Your task to perform on an android device: Play the last video I watched on Youtube Image 0: 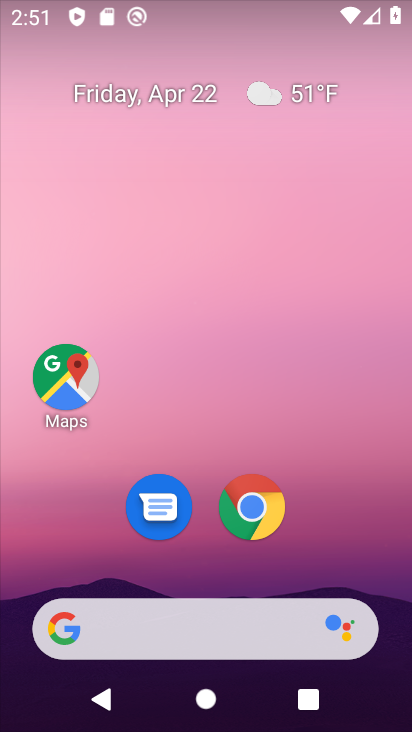
Step 0: drag from (204, 485) to (232, 106)
Your task to perform on an android device: Play the last video I watched on Youtube Image 1: 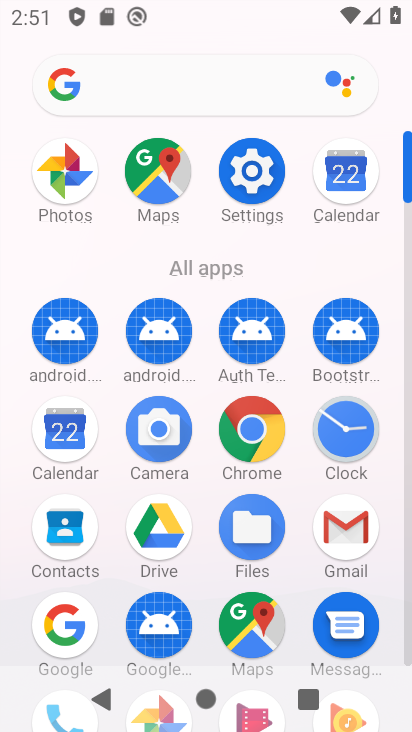
Step 1: drag from (230, 555) to (281, 83)
Your task to perform on an android device: Play the last video I watched on Youtube Image 2: 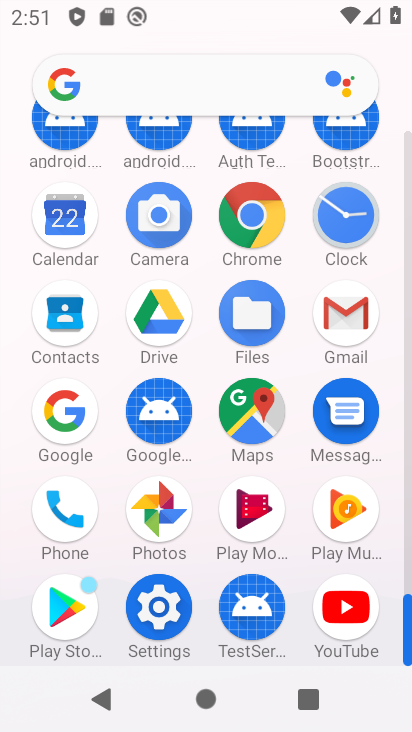
Step 2: click (343, 609)
Your task to perform on an android device: Play the last video I watched on Youtube Image 3: 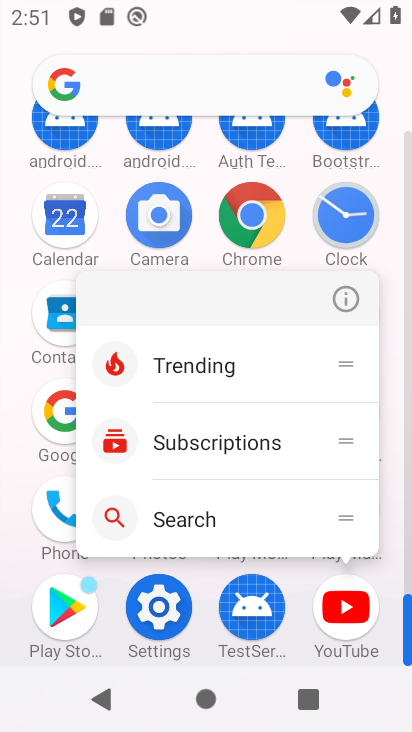
Step 3: click (352, 615)
Your task to perform on an android device: Play the last video I watched on Youtube Image 4: 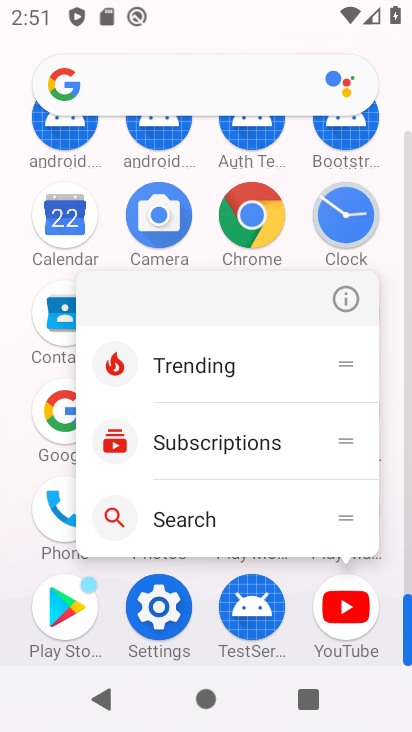
Step 4: click (341, 606)
Your task to perform on an android device: Play the last video I watched on Youtube Image 5: 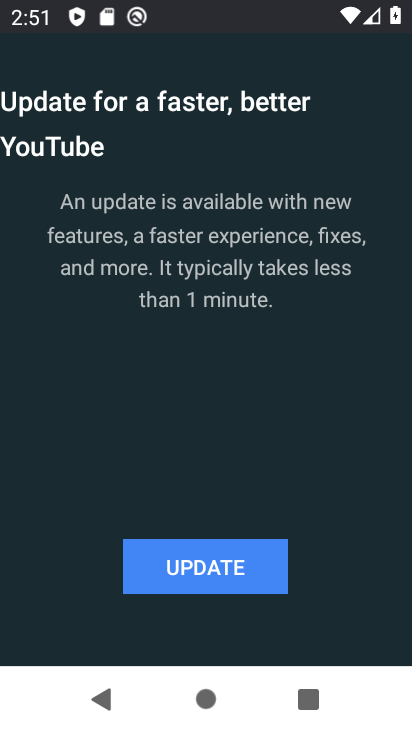
Step 5: click (206, 568)
Your task to perform on an android device: Play the last video I watched on Youtube Image 6: 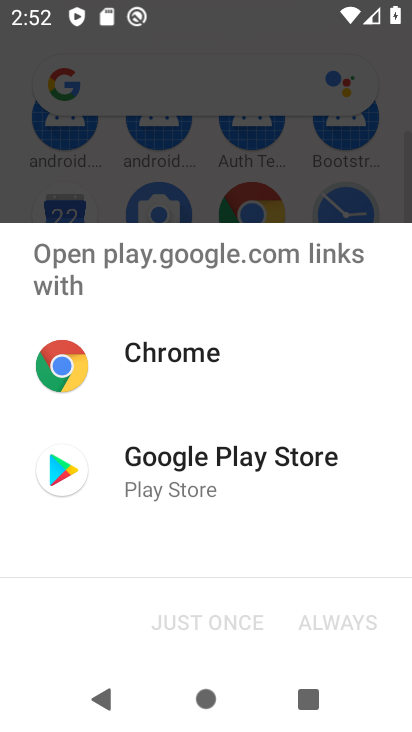
Step 6: click (228, 626)
Your task to perform on an android device: Play the last video I watched on Youtube Image 7: 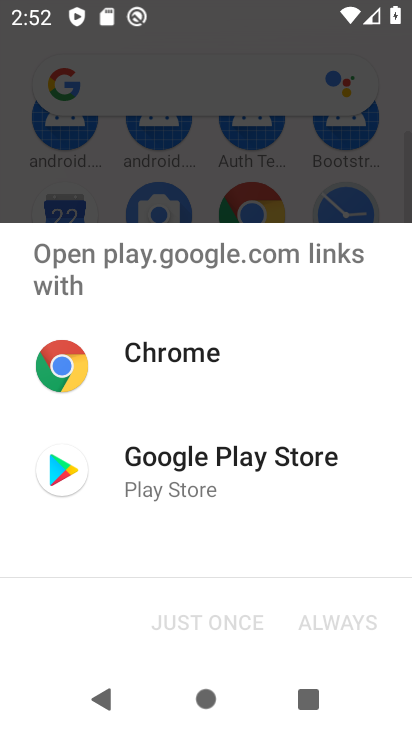
Step 7: click (216, 616)
Your task to perform on an android device: Play the last video I watched on Youtube Image 8: 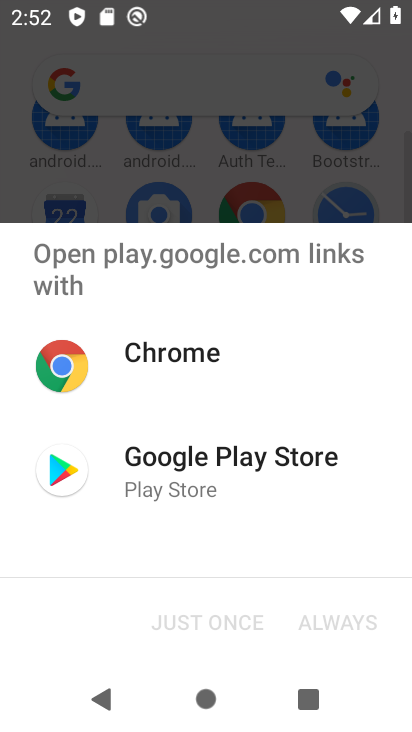
Step 8: press back button
Your task to perform on an android device: Play the last video I watched on Youtube Image 9: 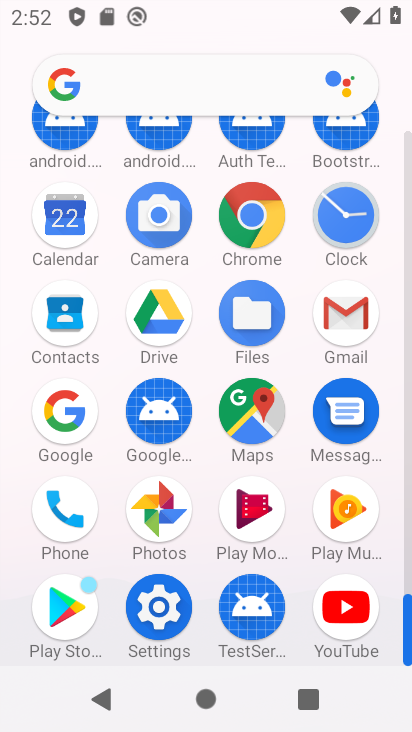
Step 9: click (345, 607)
Your task to perform on an android device: Play the last video I watched on Youtube Image 10: 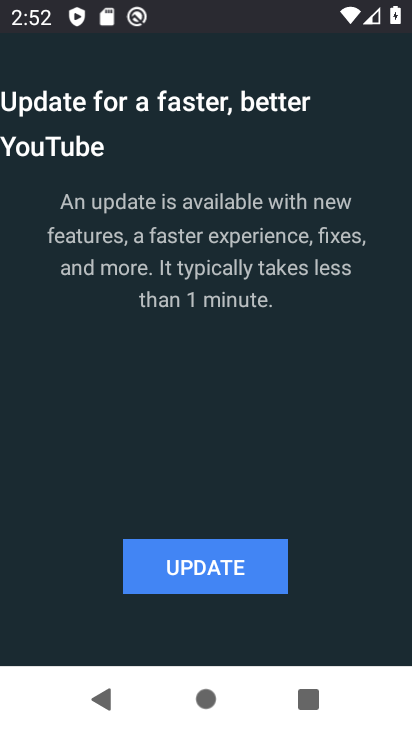
Step 10: click (205, 575)
Your task to perform on an android device: Play the last video I watched on Youtube Image 11: 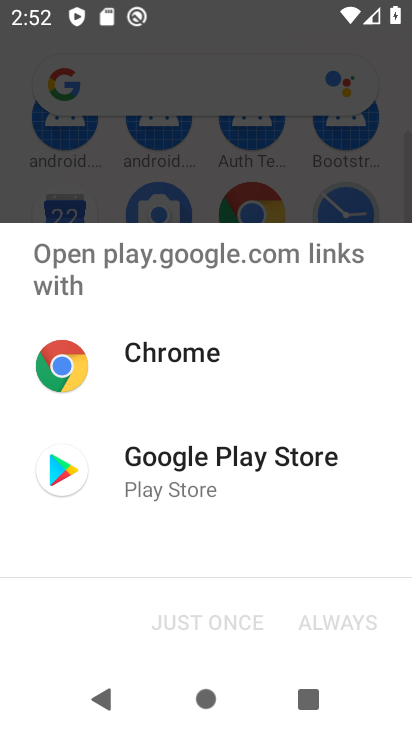
Step 11: click (195, 482)
Your task to perform on an android device: Play the last video I watched on Youtube Image 12: 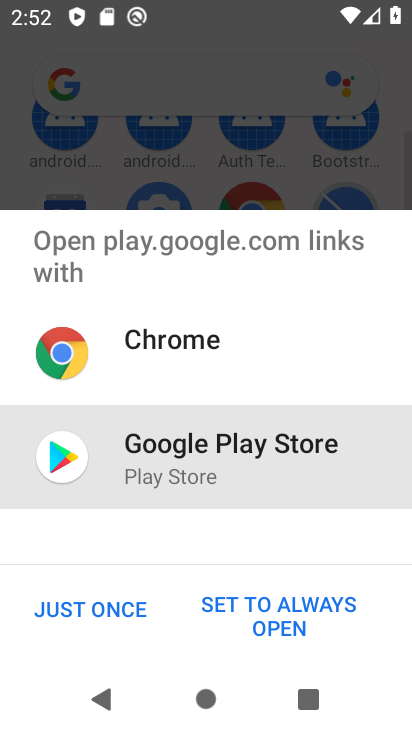
Step 12: click (85, 607)
Your task to perform on an android device: Play the last video I watched on Youtube Image 13: 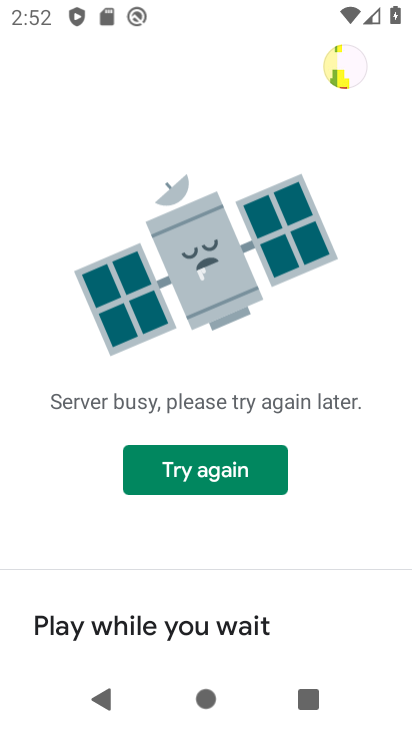
Step 13: click (236, 477)
Your task to perform on an android device: Play the last video I watched on Youtube Image 14: 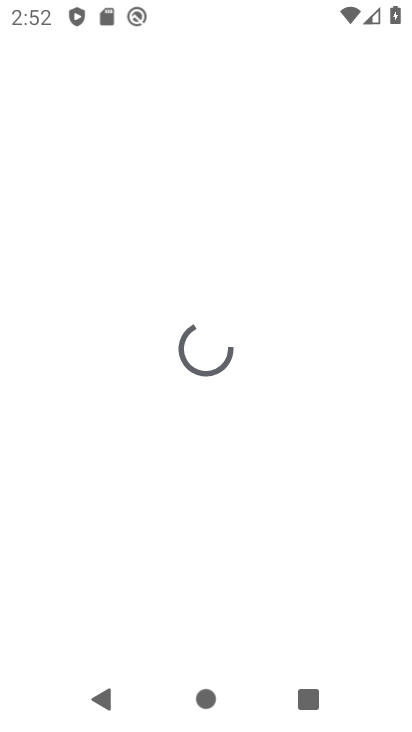
Step 14: press back button
Your task to perform on an android device: Play the last video I watched on Youtube Image 15: 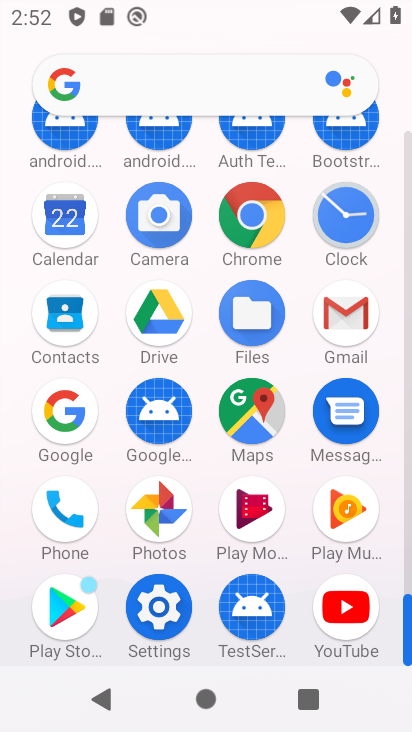
Step 15: press back button
Your task to perform on an android device: Play the last video I watched on Youtube Image 16: 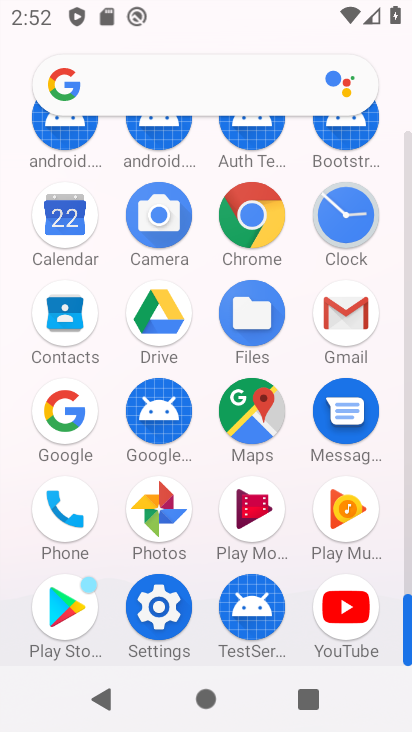
Step 16: click (333, 620)
Your task to perform on an android device: Play the last video I watched on Youtube Image 17: 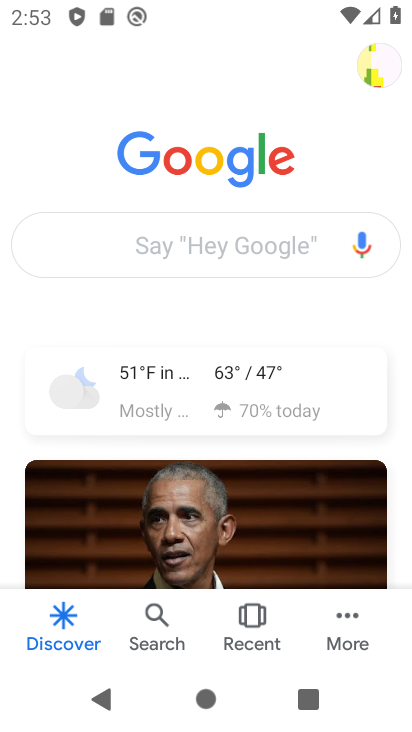
Step 17: press home button
Your task to perform on an android device: Play the last video I watched on Youtube Image 18: 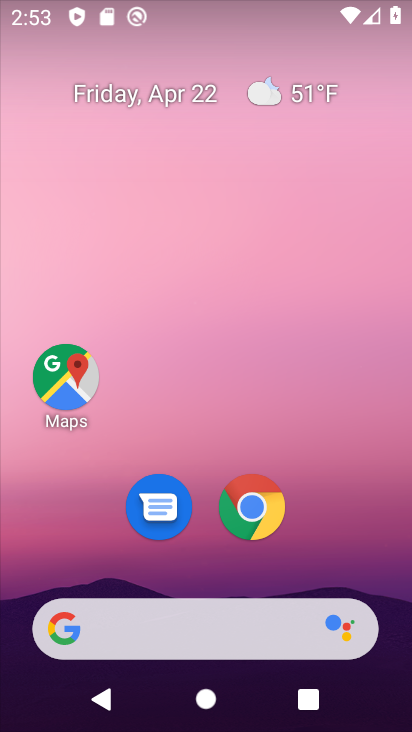
Step 18: drag from (229, 462) to (245, 98)
Your task to perform on an android device: Play the last video I watched on Youtube Image 19: 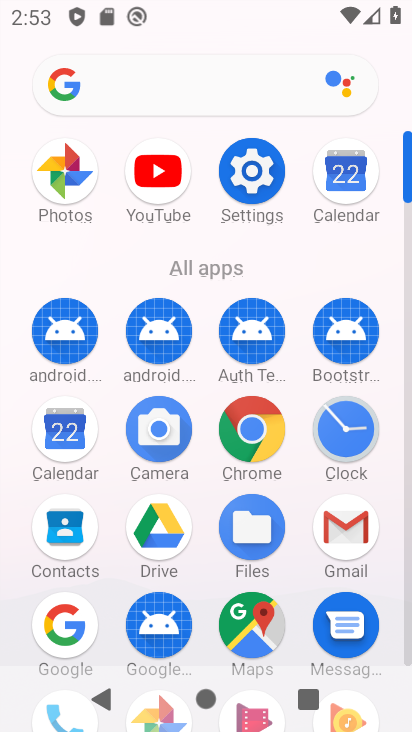
Step 19: click (157, 173)
Your task to perform on an android device: Play the last video I watched on Youtube Image 20: 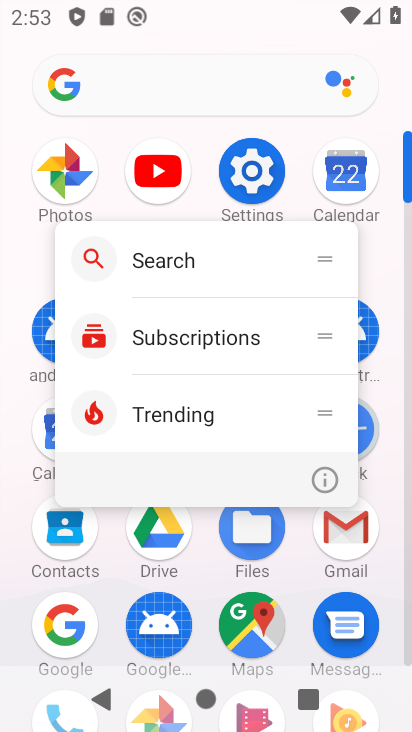
Step 20: click (158, 181)
Your task to perform on an android device: Play the last video I watched on Youtube Image 21: 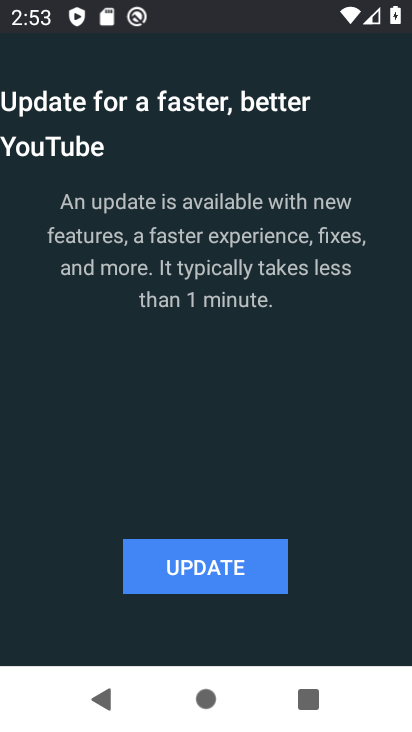
Step 21: click (214, 568)
Your task to perform on an android device: Play the last video I watched on Youtube Image 22: 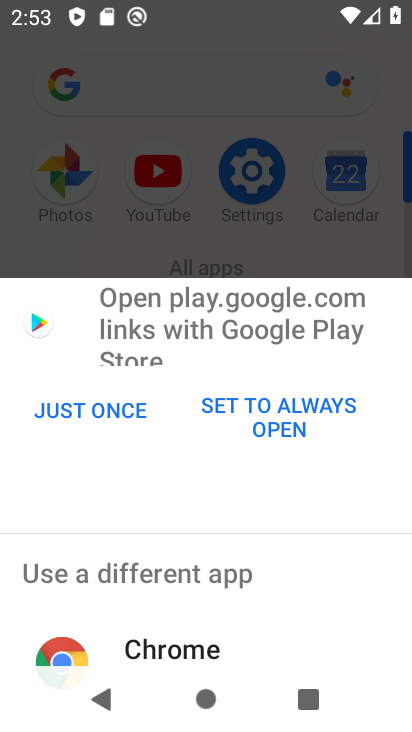
Step 22: press back button
Your task to perform on an android device: Play the last video I watched on Youtube Image 23: 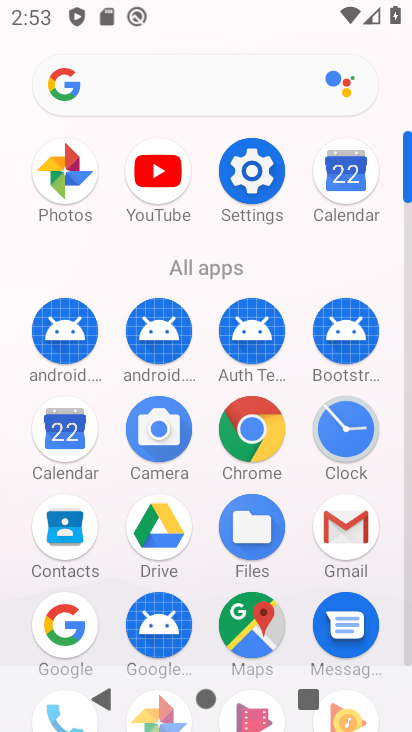
Step 23: click (151, 180)
Your task to perform on an android device: Play the last video I watched on Youtube Image 24: 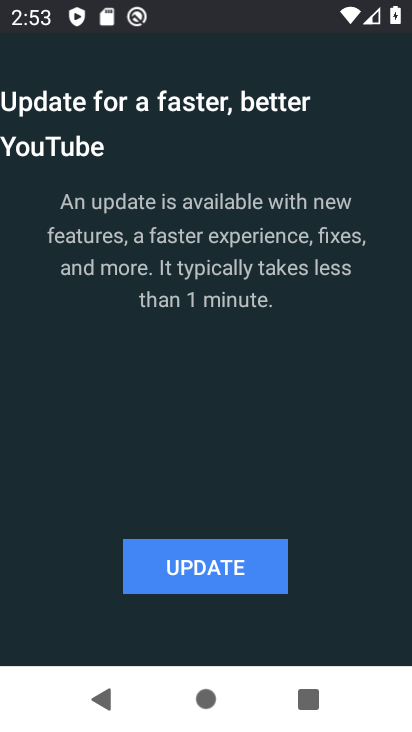
Step 24: click (257, 567)
Your task to perform on an android device: Play the last video I watched on Youtube Image 25: 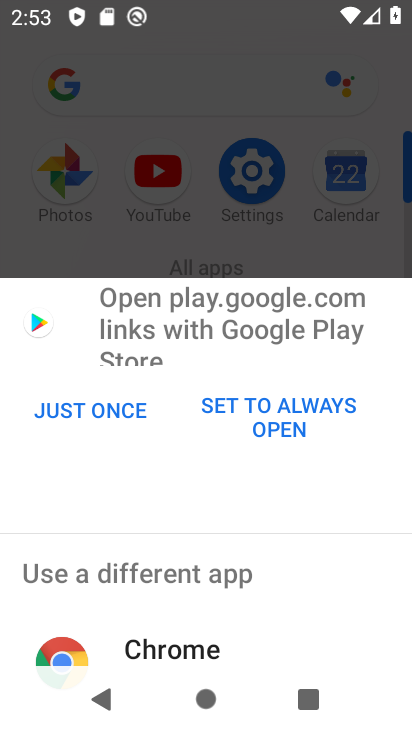
Step 25: click (94, 414)
Your task to perform on an android device: Play the last video I watched on Youtube Image 26: 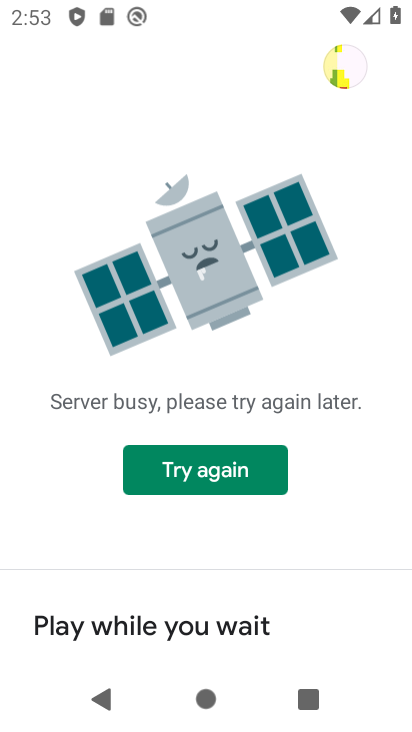
Step 26: task complete